Your task to perform on an android device: Search for energizer triple a on walmart, select the first entry, add it to the cart, then select checkout. Image 0: 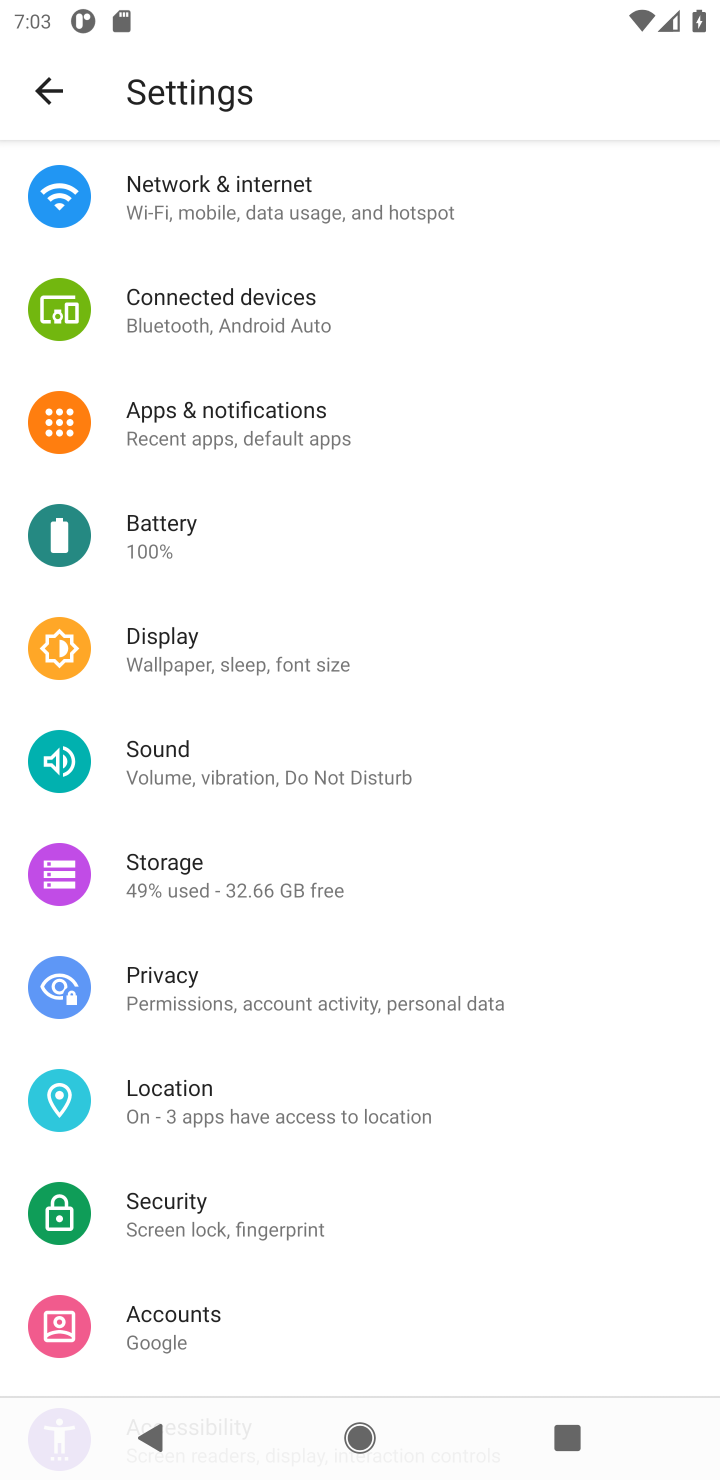
Step 0: press home button
Your task to perform on an android device: Search for energizer triple a on walmart, select the first entry, add it to the cart, then select checkout. Image 1: 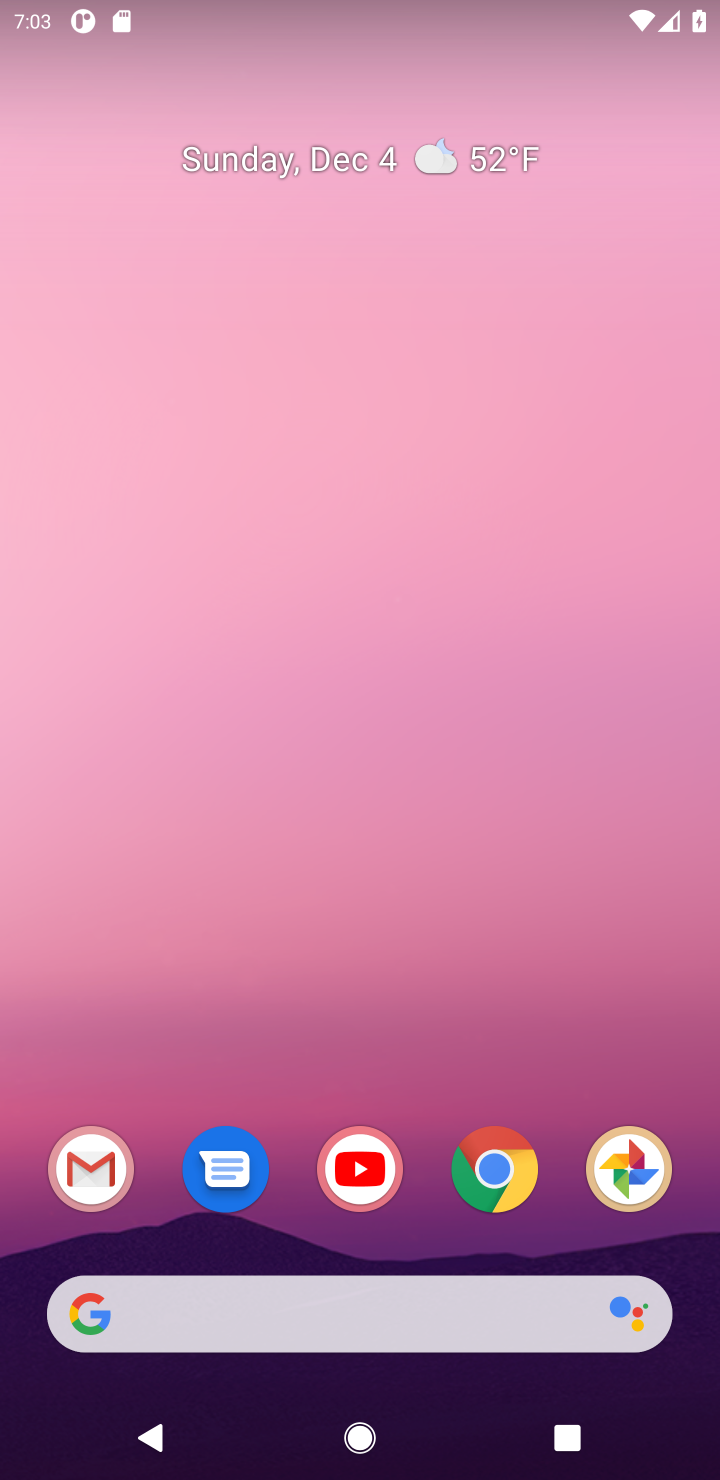
Step 1: click (493, 1164)
Your task to perform on an android device: Search for energizer triple a on walmart, select the first entry, add it to the cart, then select checkout. Image 2: 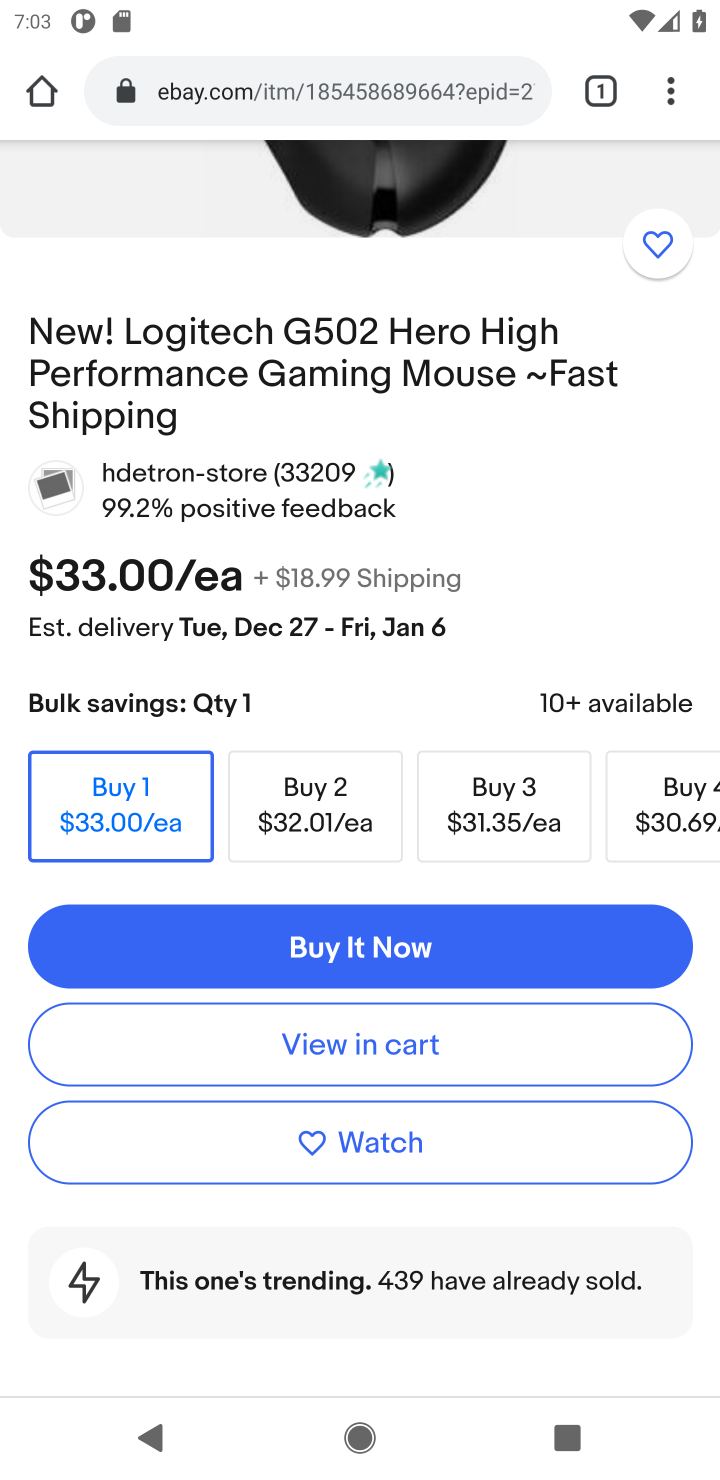
Step 2: click (308, 85)
Your task to perform on an android device: Search for energizer triple a on walmart, select the first entry, add it to the cart, then select checkout. Image 3: 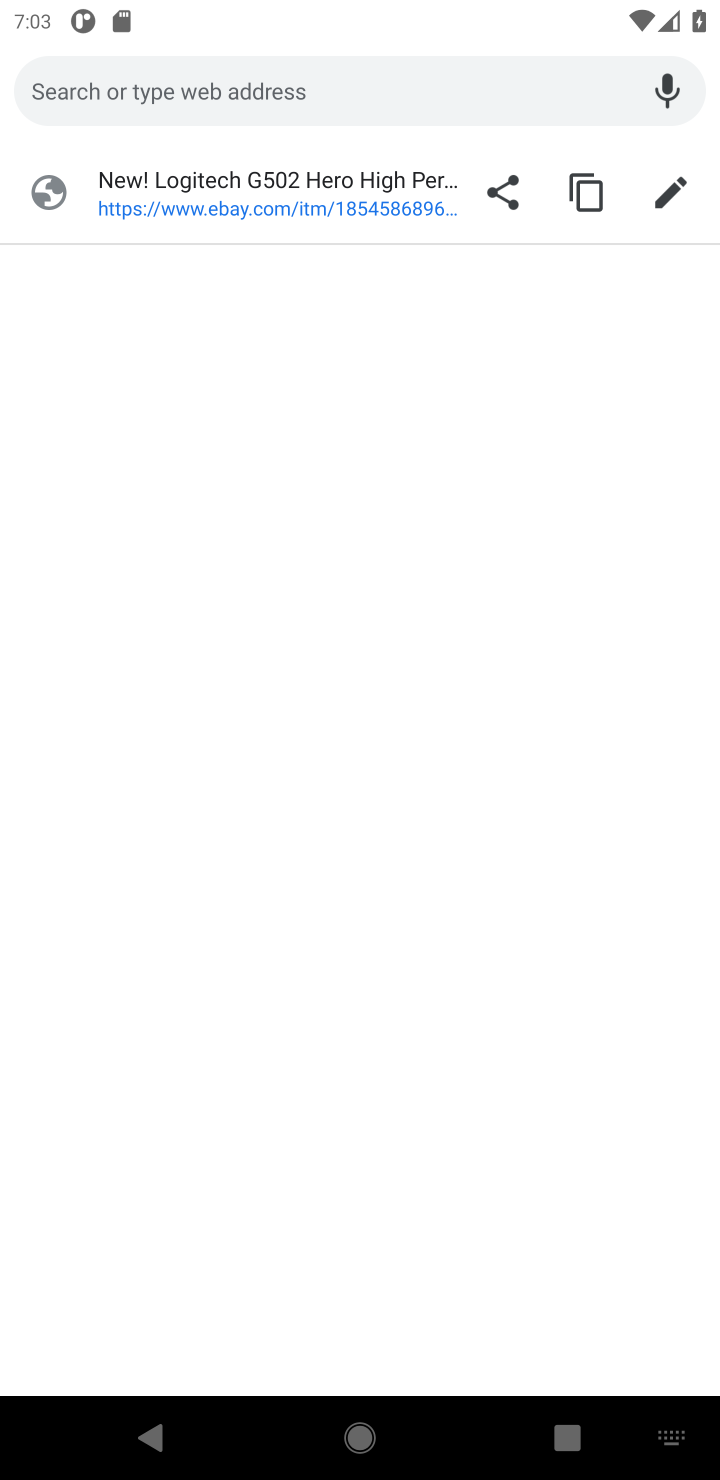
Step 3: type "walmart"
Your task to perform on an android device: Search for energizer triple a on walmart, select the first entry, add it to the cart, then select checkout. Image 4: 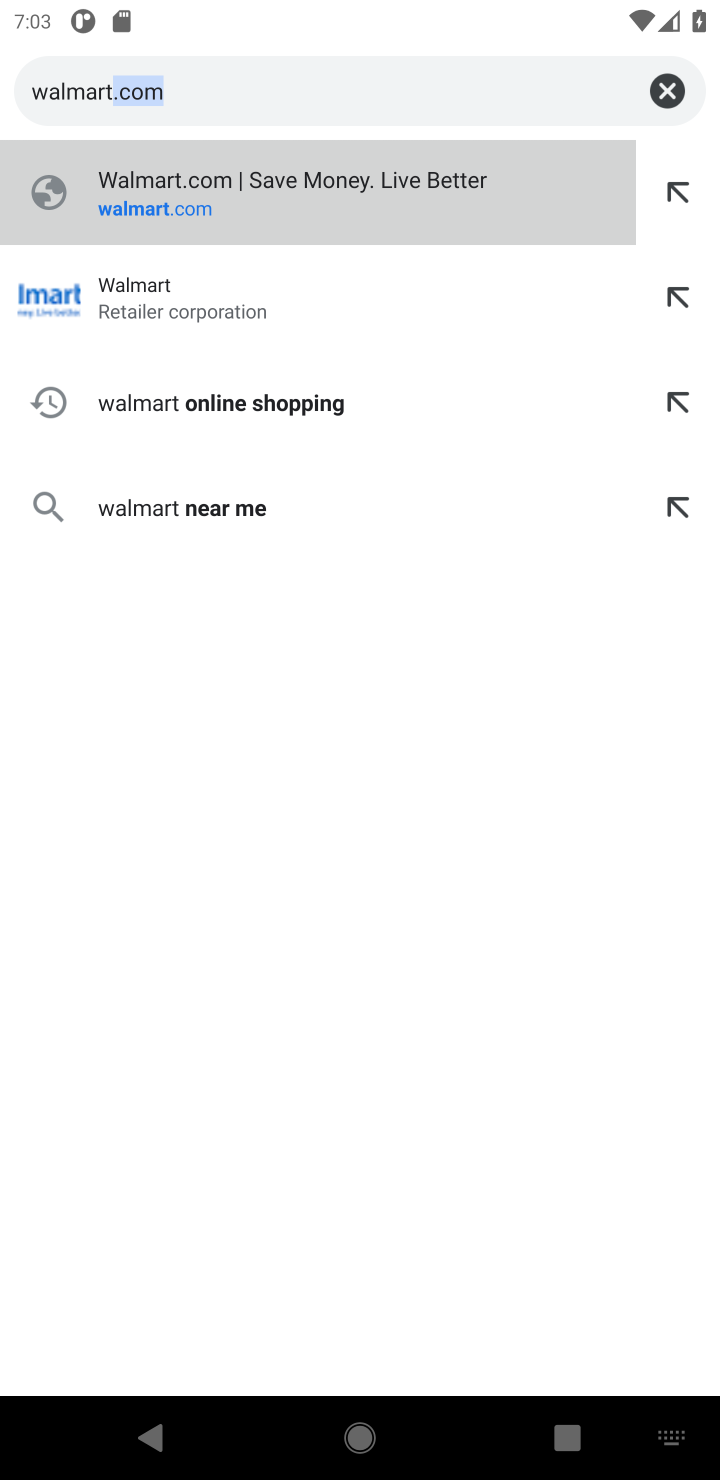
Step 4: click (181, 185)
Your task to perform on an android device: Search for energizer triple a on walmart, select the first entry, add it to the cart, then select checkout. Image 5: 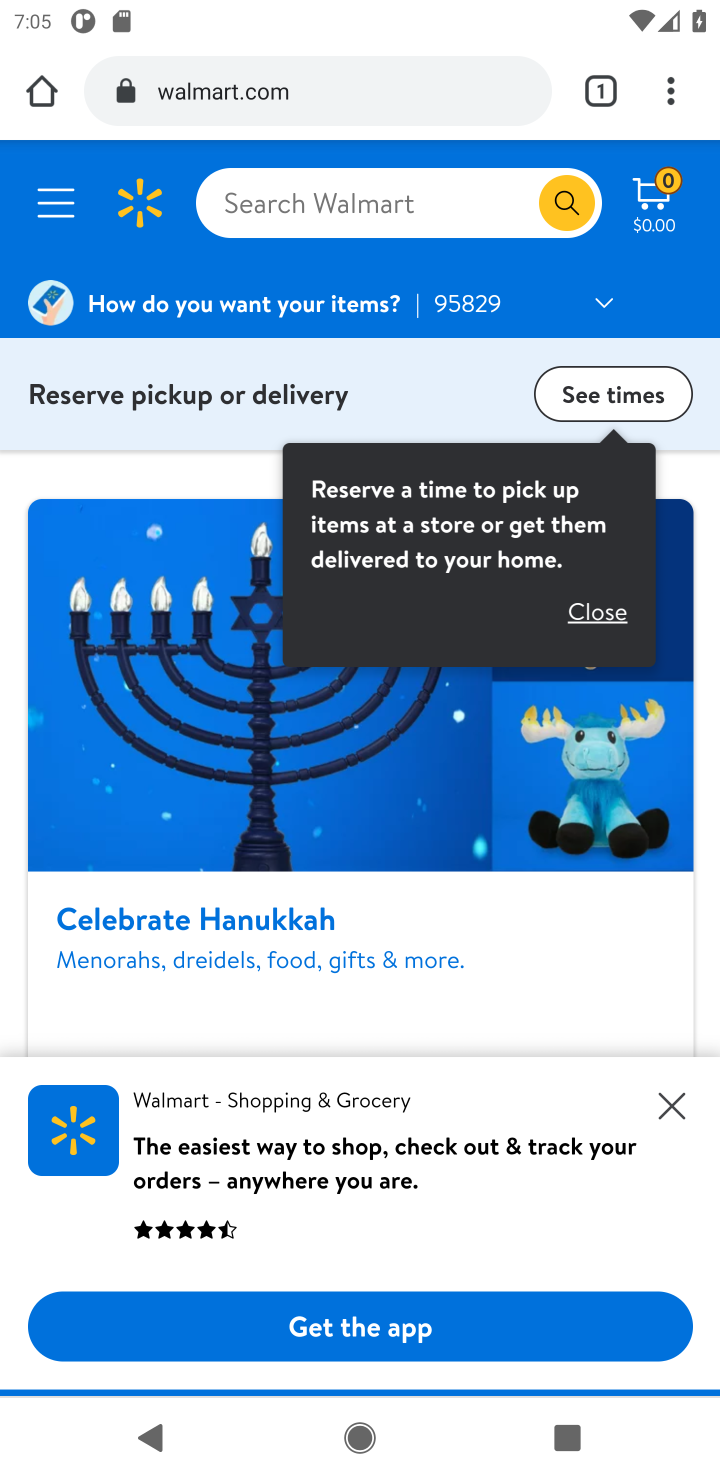
Step 5: click (448, 200)
Your task to perform on an android device: Search for energizer triple a on walmart, select the first entry, add it to the cart, then select checkout. Image 6: 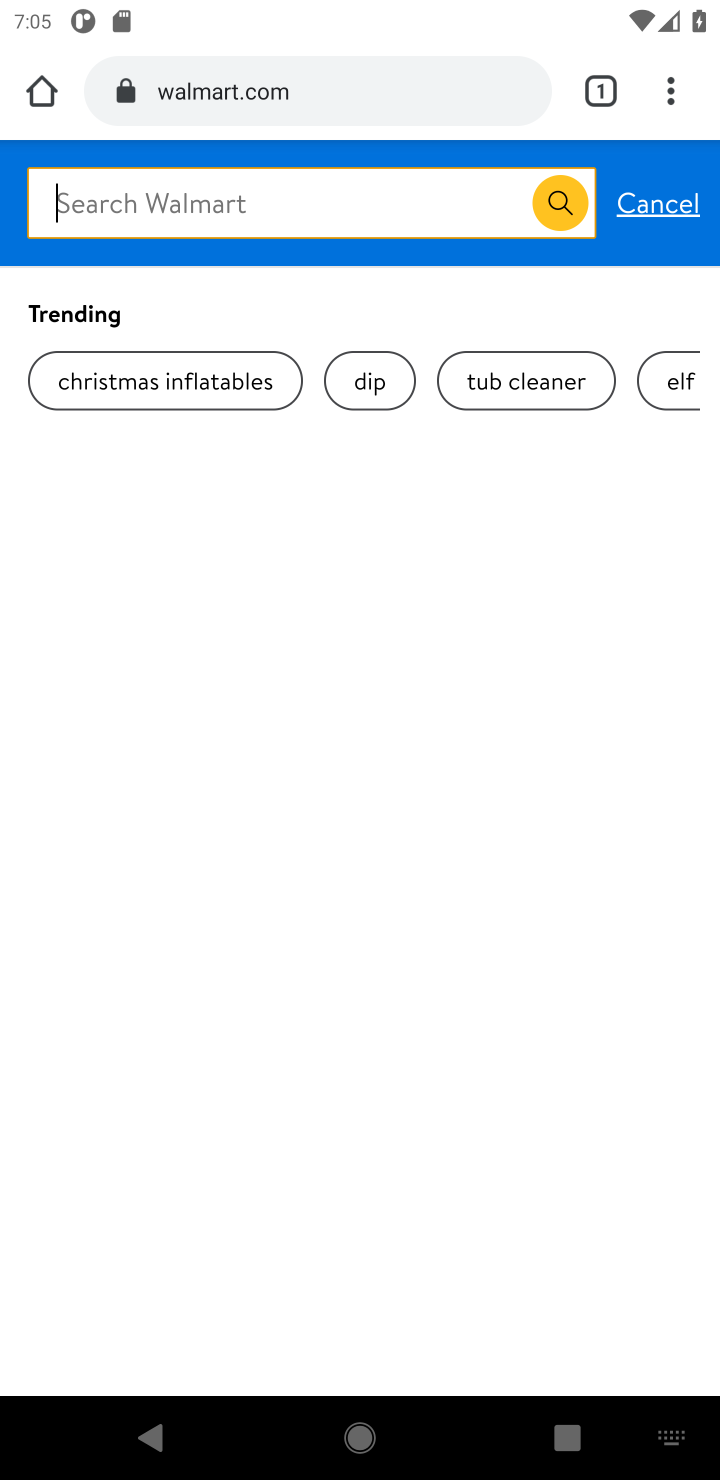
Step 6: type "energizer triple a"
Your task to perform on an android device: Search for energizer triple a on walmart, select the first entry, add it to the cart, then select checkout. Image 7: 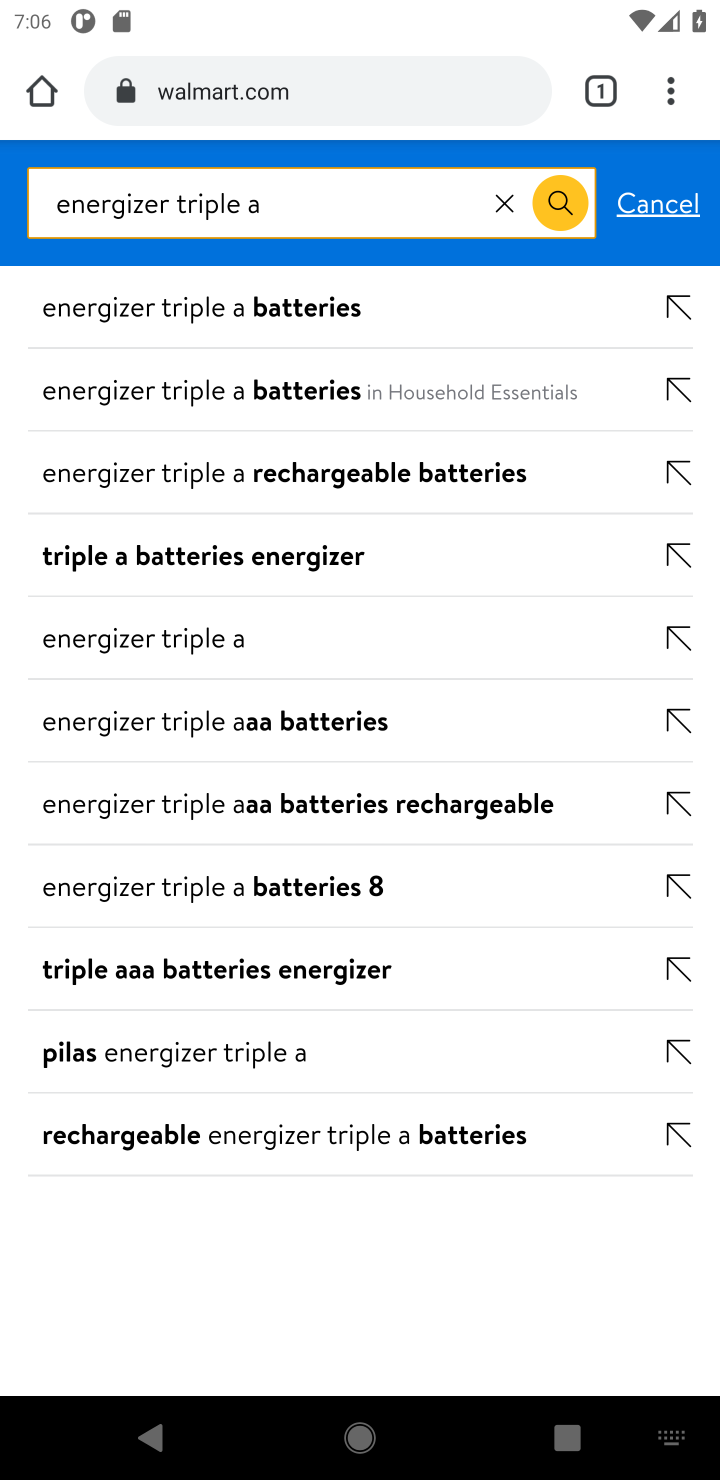
Step 7: click (280, 314)
Your task to perform on an android device: Search for energizer triple a on walmart, select the first entry, add it to the cart, then select checkout. Image 8: 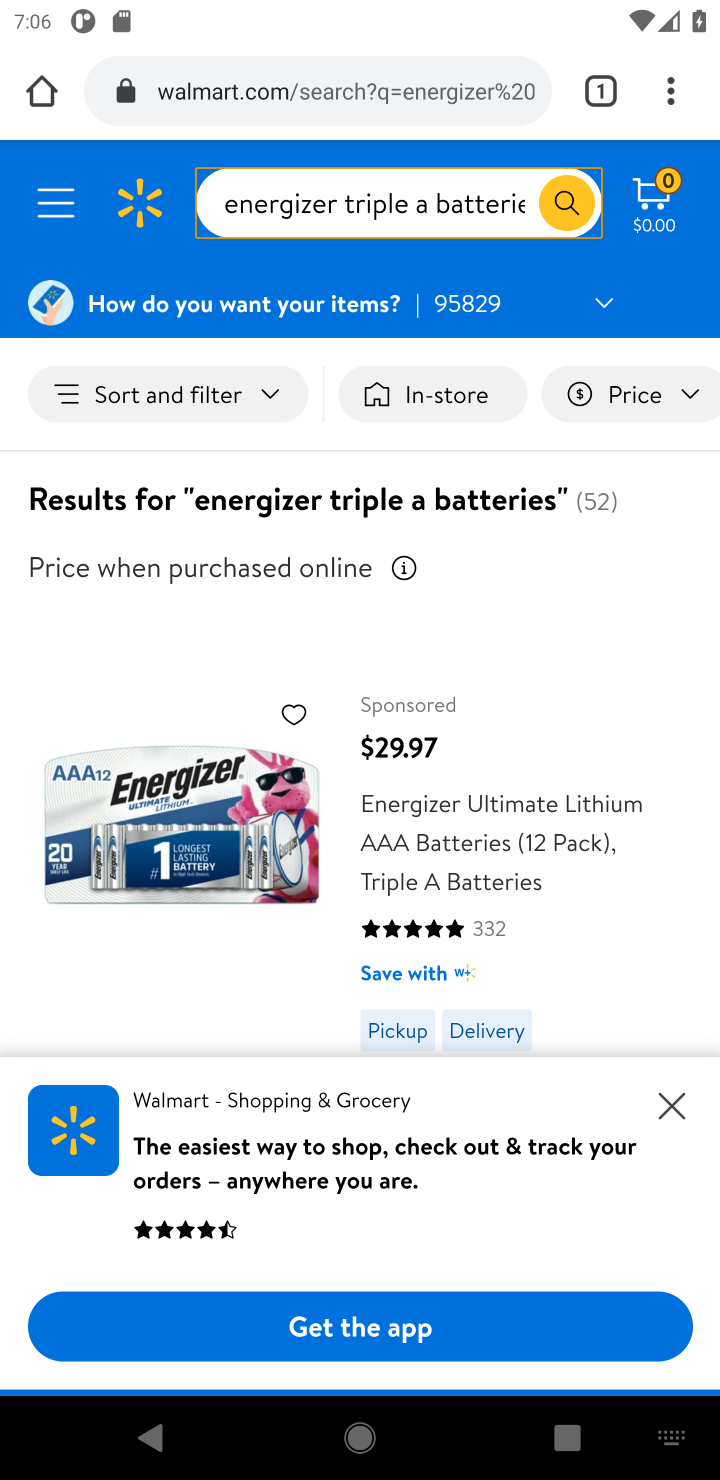
Step 8: click (248, 308)
Your task to perform on an android device: Search for energizer triple a on walmart, select the first entry, add it to the cart, then select checkout. Image 9: 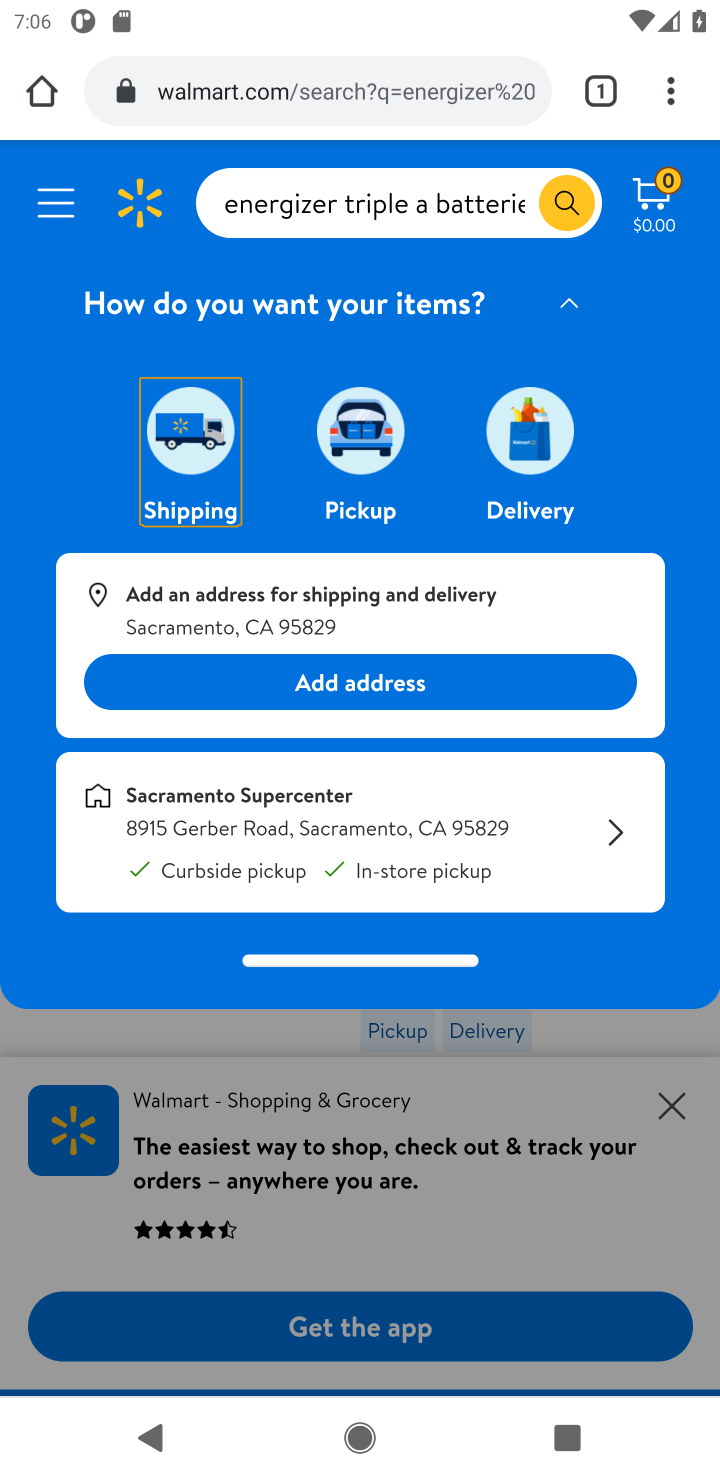
Step 9: click (570, 199)
Your task to perform on an android device: Search for energizer triple a on walmart, select the first entry, add it to the cart, then select checkout. Image 10: 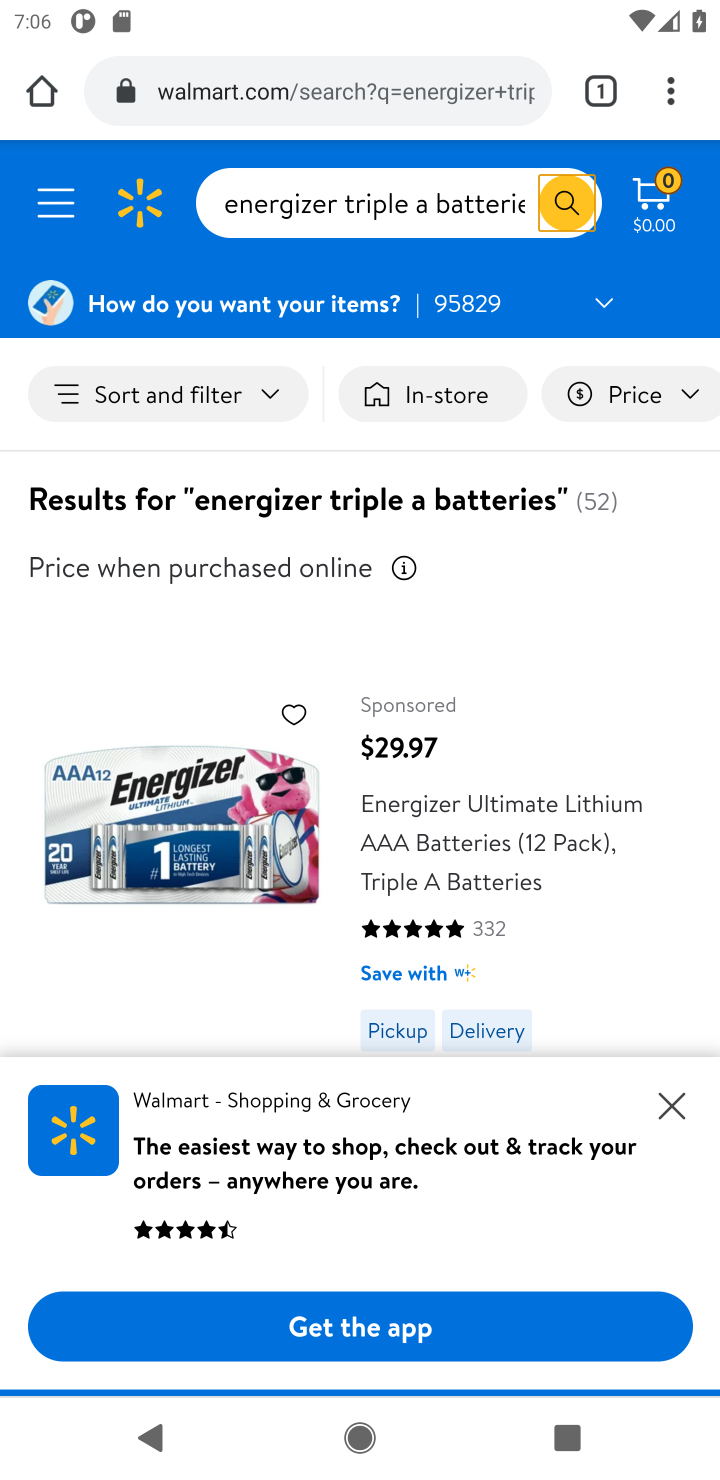
Step 10: click (233, 798)
Your task to perform on an android device: Search for energizer triple a on walmart, select the first entry, add it to the cart, then select checkout. Image 11: 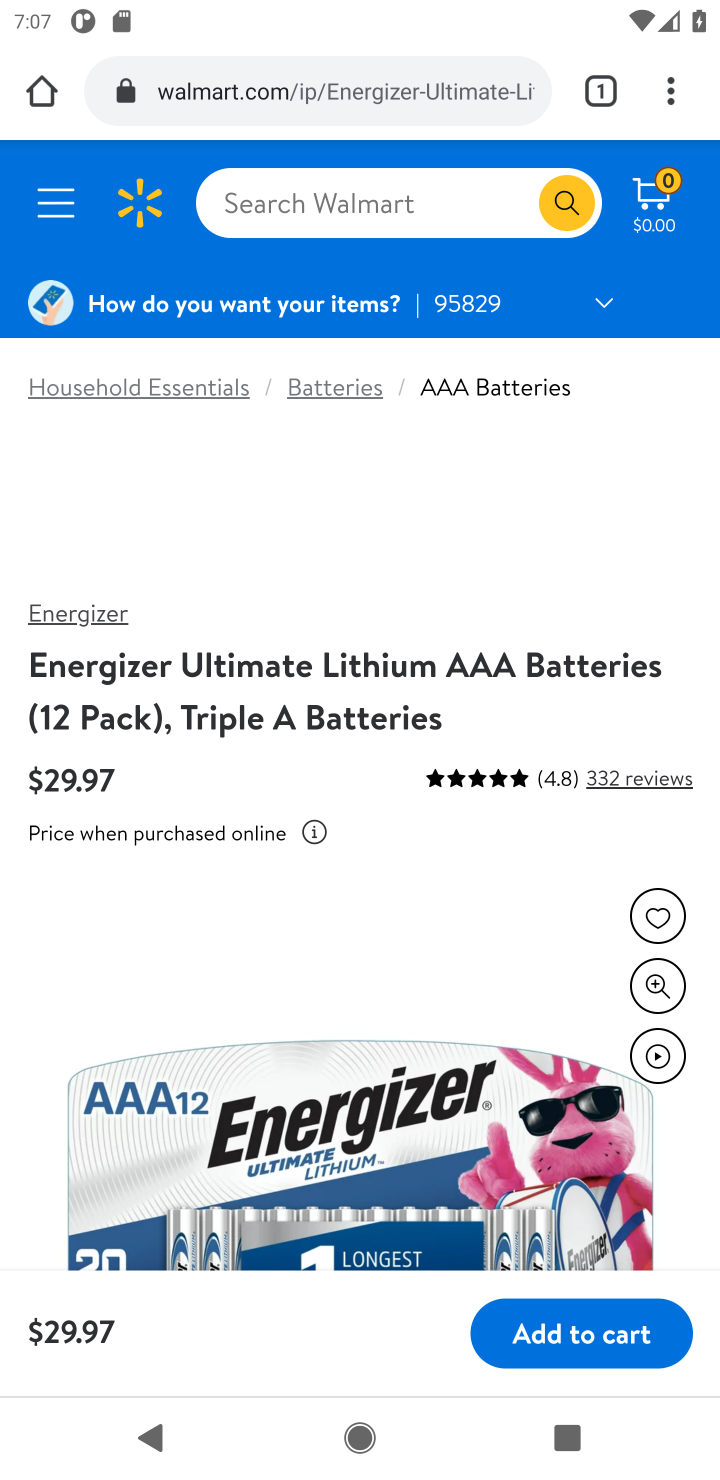
Step 11: click (547, 1337)
Your task to perform on an android device: Search for energizer triple a on walmart, select the first entry, add it to the cart, then select checkout. Image 12: 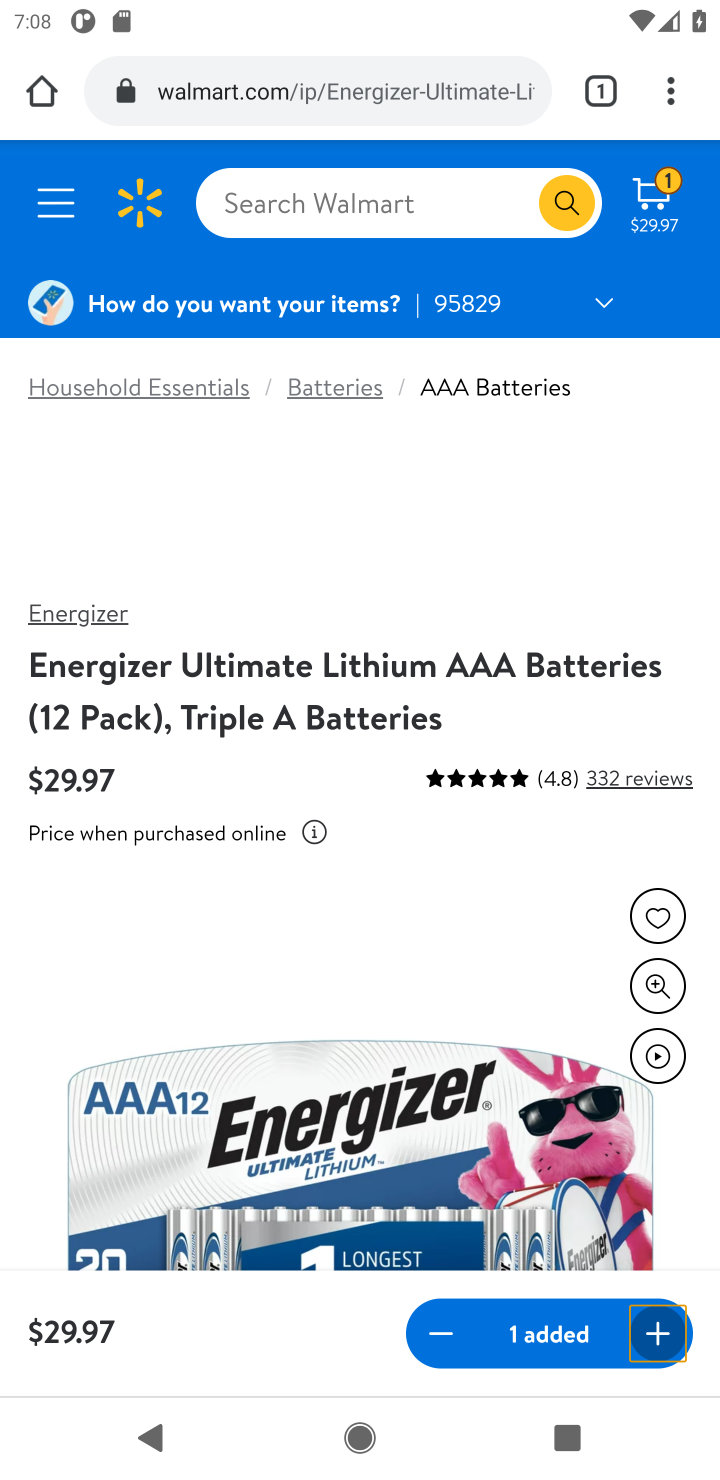
Step 12: task complete